Your task to perform on an android device: Go to Wikipedia Image 0: 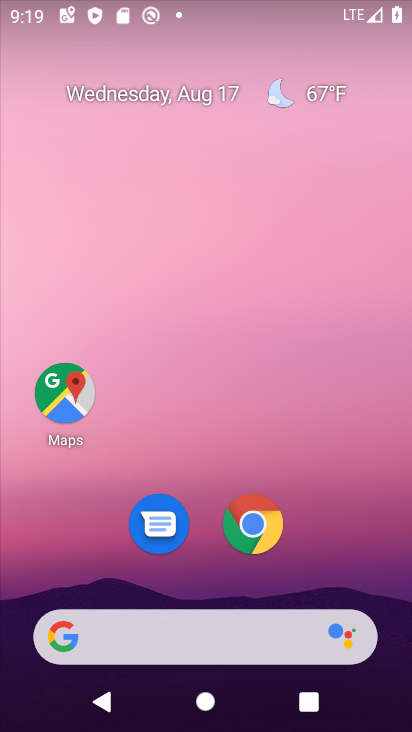
Step 0: click (263, 521)
Your task to perform on an android device: Go to Wikipedia Image 1: 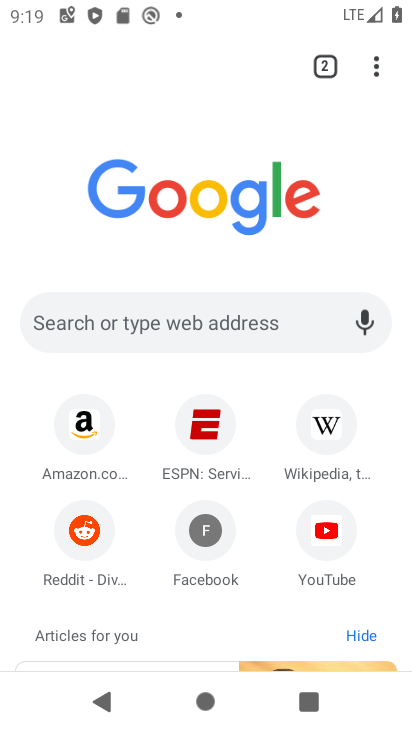
Step 1: click (325, 425)
Your task to perform on an android device: Go to Wikipedia Image 2: 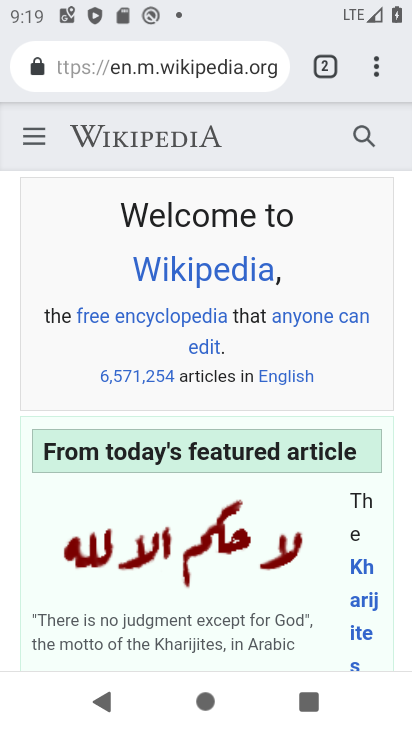
Step 2: task complete